Your task to perform on an android device: Open my contact list Image 0: 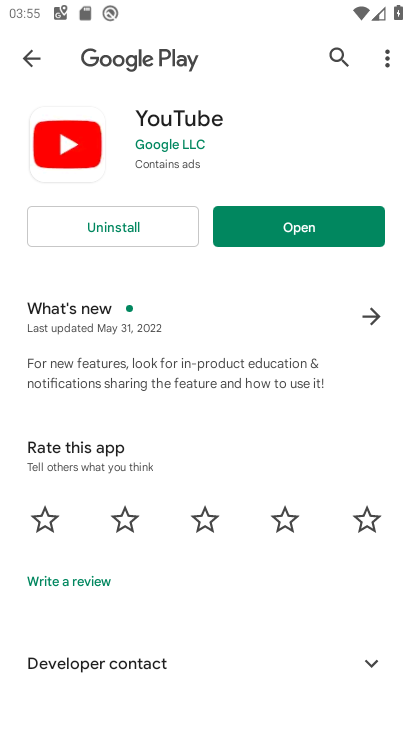
Step 0: press home button
Your task to perform on an android device: Open my contact list Image 1: 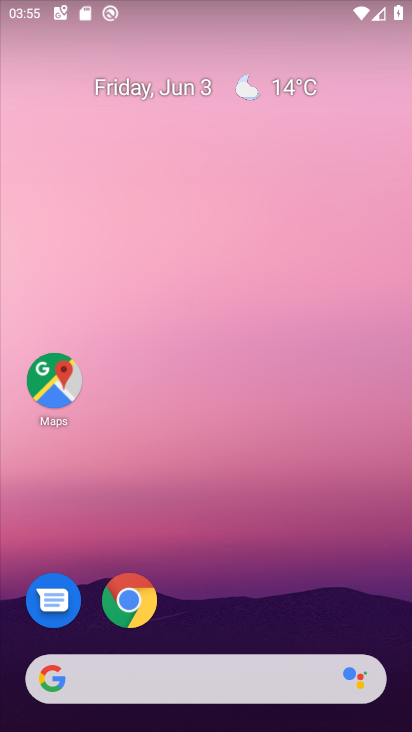
Step 1: drag from (217, 597) to (244, 114)
Your task to perform on an android device: Open my contact list Image 2: 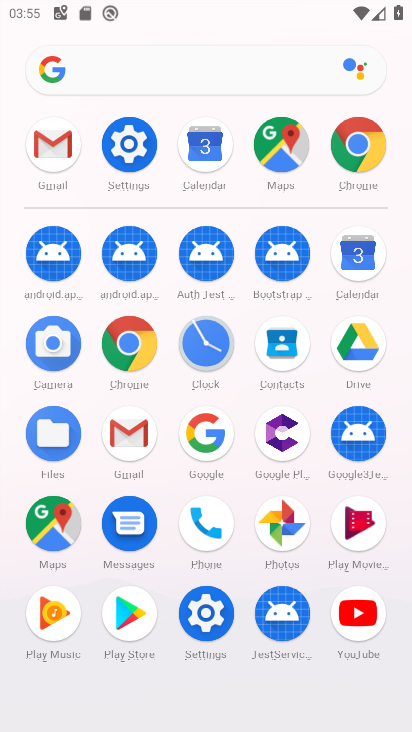
Step 2: click (281, 338)
Your task to perform on an android device: Open my contact list Image 3: 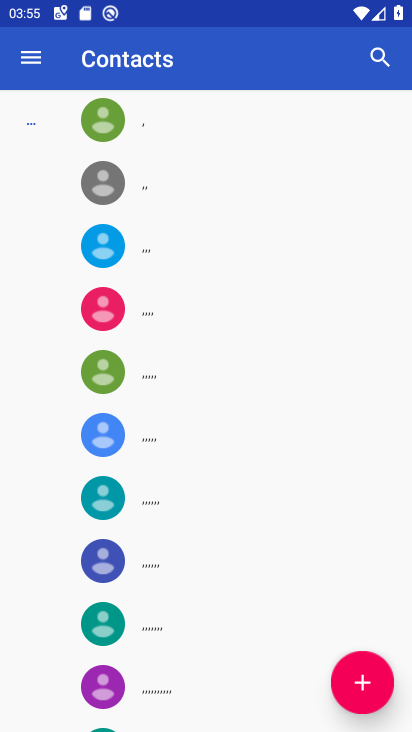
Step 3: task complete